Your task to perform on an android device: Where can I buy a nice beach towel? Image 0: 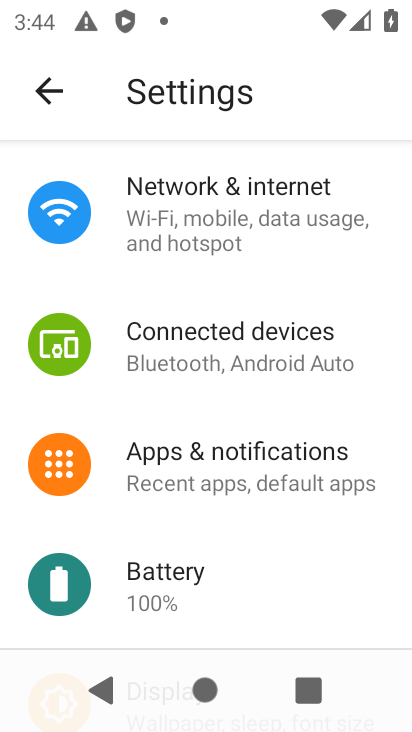
Step 0: press home button
Your task to perform on an android device: Where can I buy a nice beach towel? Image 1: 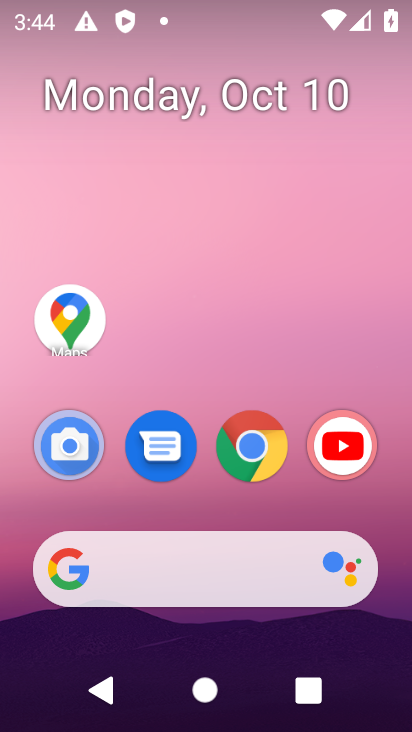
Step 1: click (202, 578)
Your task to perform on an android device: Where can I buy a nice beach towel? Image 2: 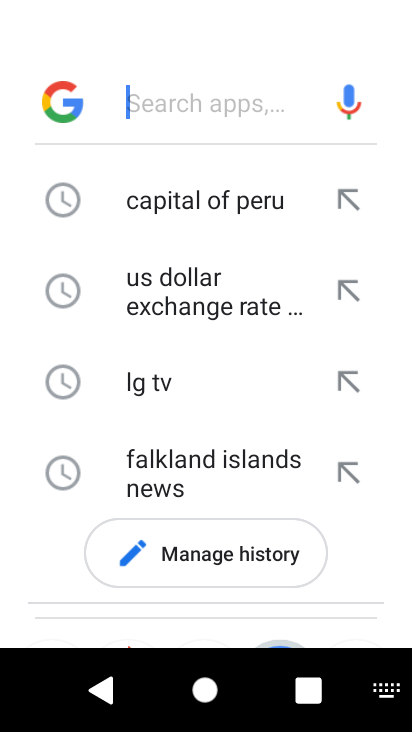
Step 2: type "buy a nice beach towel"
Your task to perform on an android device: Where can I buy a nice beach towel? Image 3: 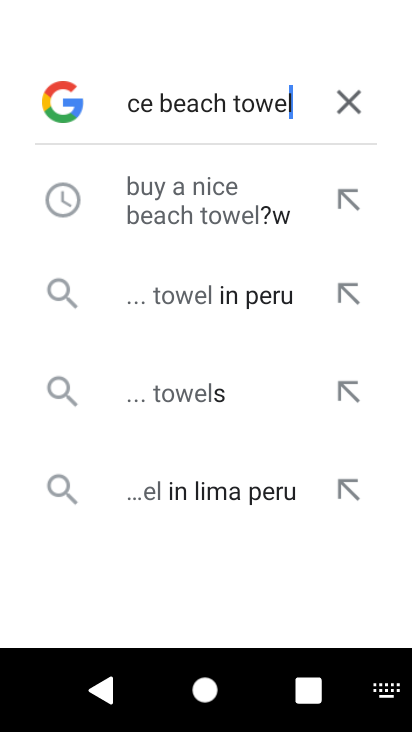
Step 3: type ""
Your task to perform on an android device: Where can I buy a nice beach towel? Image 4: 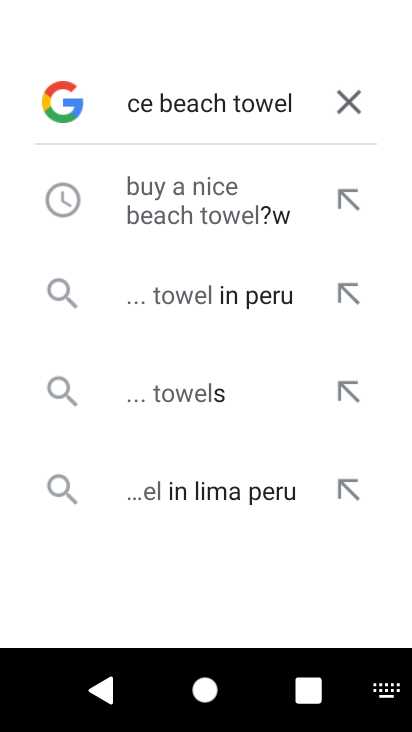
Step 4: click (185, 402)
Your task to perform on an android device: Where can I buy a nice beach towel? Image 5: 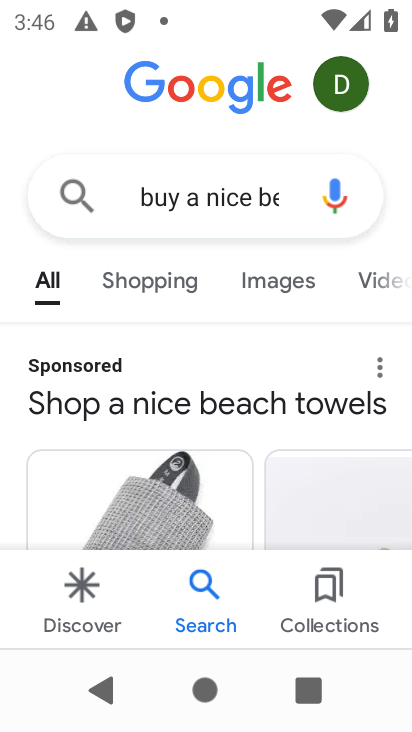
Step 5: task complete